Your task to perform on an android device: Open ESPN.com Image 0: 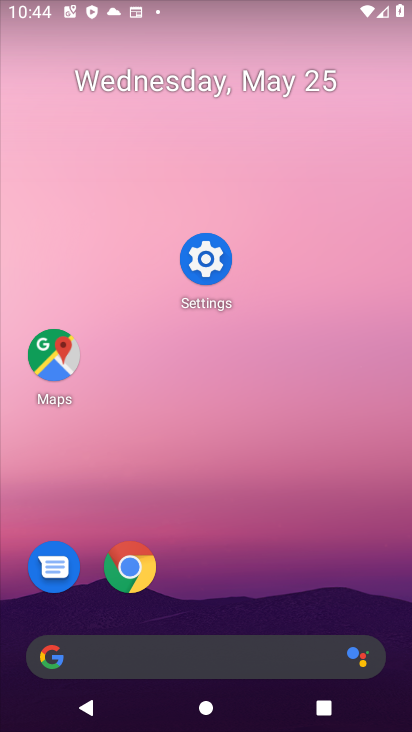
Step 0: click (226, 667)
Your task to perform on an android device: Open ESPN.com Image 1: 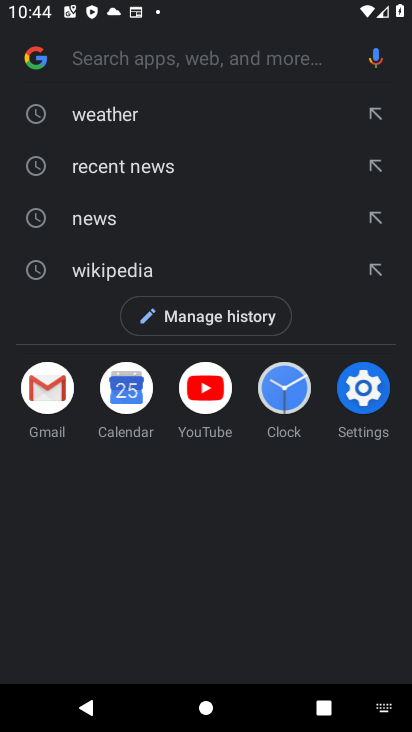
Step 1: type "espn.com"
Your task to perform on an android device: Open ESPN.com Image 2: 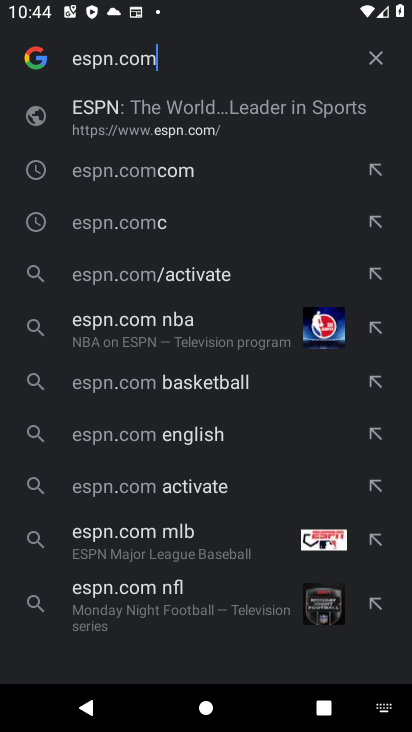
Step 2: click (197, 124)
Your task to perform on an android device: Open ESPN.com Image 3: 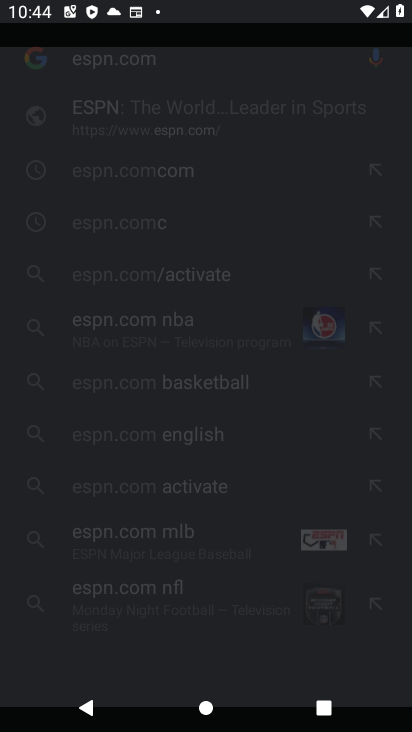
Step 3: task complete